Your task to perform on an android device: turn off improve location accuracy Image 0: 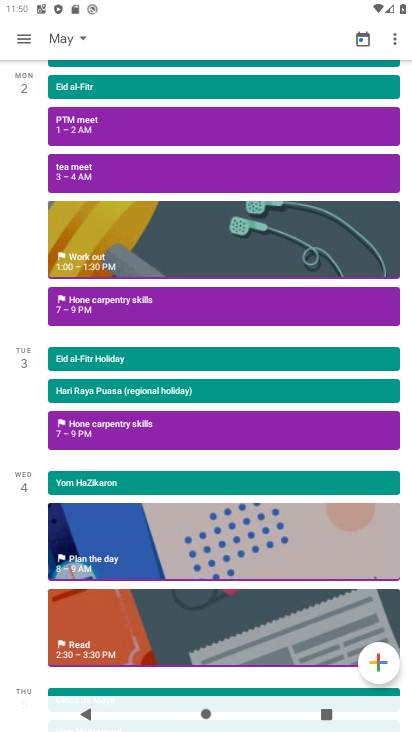
Step 0: press back button
Your task to perform on an android device: turn off improve location accuracy Image 1: 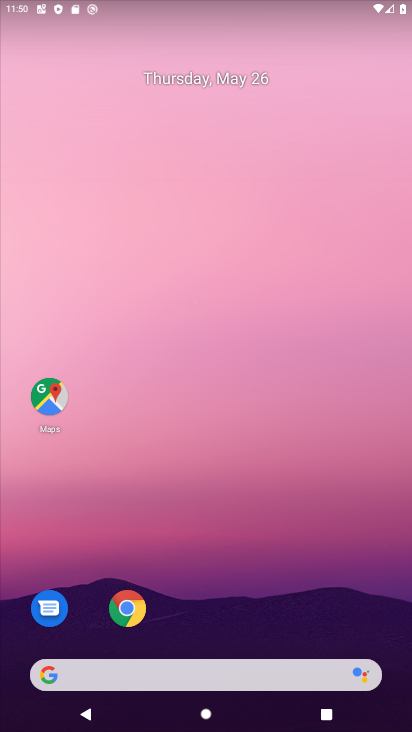
Step 1: drag from (265, 572) to (130, 16)
Your task to perform on an android device: turn off improve location accuracy Image 2: 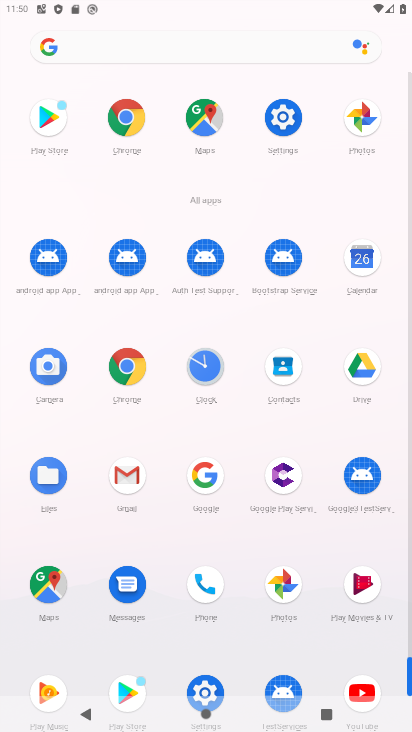
Step 2: drag from (14, 489) to (15, 235)
Your task to perform on an android device: turn off improve location accuracy Image 3: 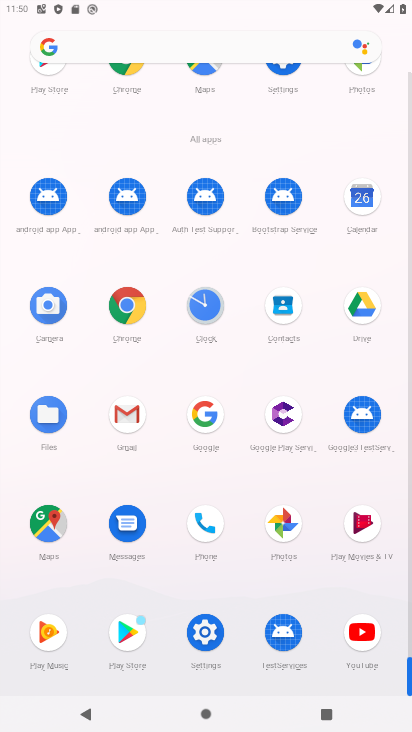
Step 3: click (202, 627)
Your task to perform on an android device: turn off improve location accuracy Image 4: 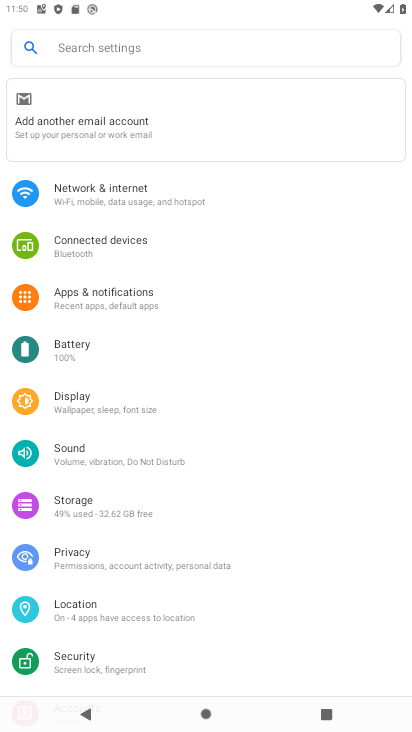
Step 4: click (97, 608)
Your task to perform on an android device: turn off improve location accuracy Image 5: 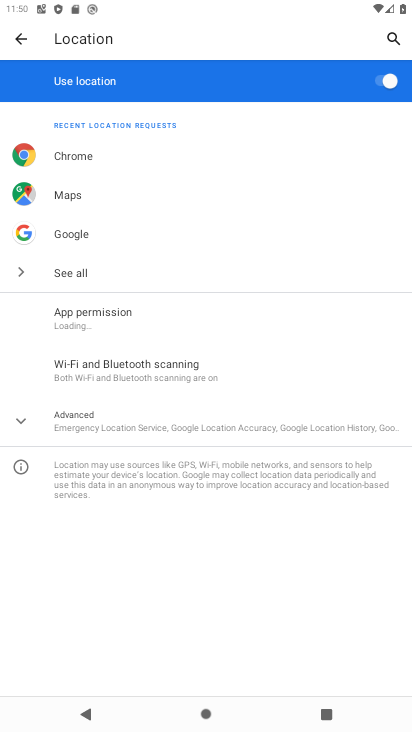
Step 5: click (48, 420)
Your task to perform on an android device: turn off improve location accuracy Image 6: 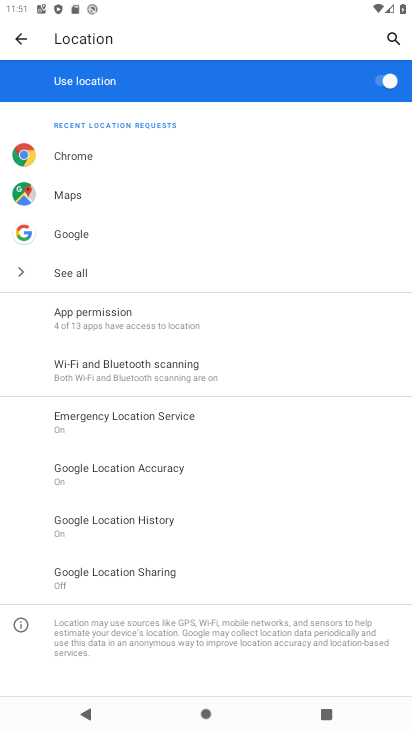
Step 6: click (177, 478)
Your task to perform on an android device: turn off improve location accuracy Image 7: 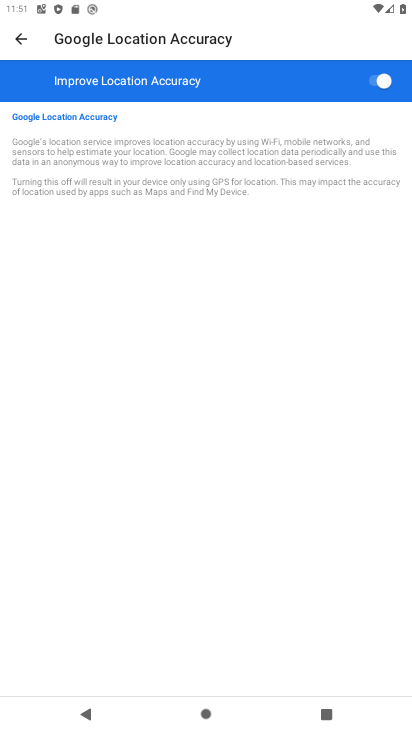
Step 7: click (375, 70)
Your task to perform on an android device: turn off improve location accuracy Image 8: 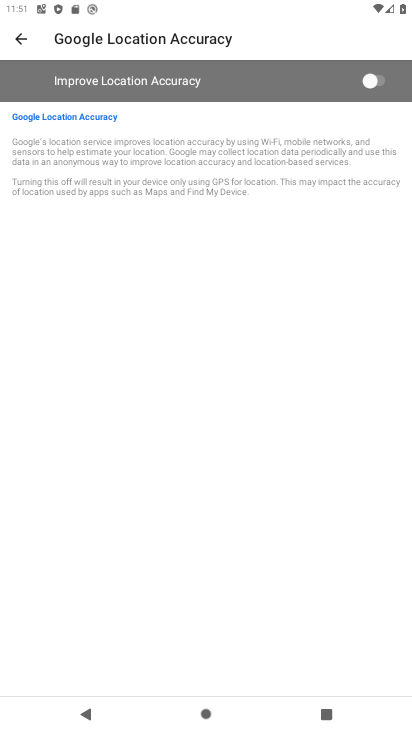
Step 8: task complete